Your task to perform on an android device: refresh tabs in the chrome app Image 0: 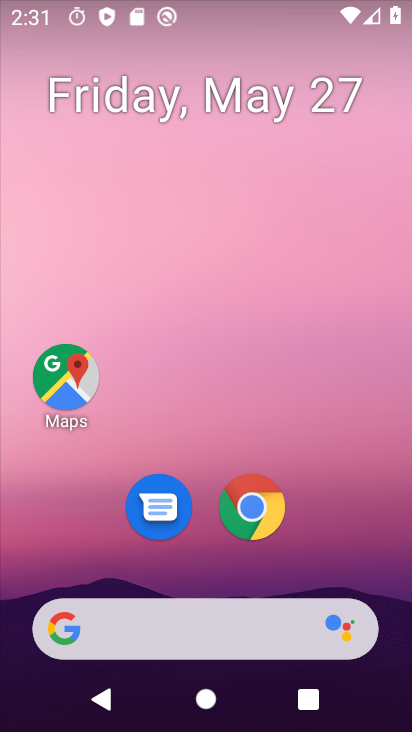
Step 0: drag from (220, 603) to (180, 254)
Your task to perform on an android device: refresh tabs in the chrome app Image 1: 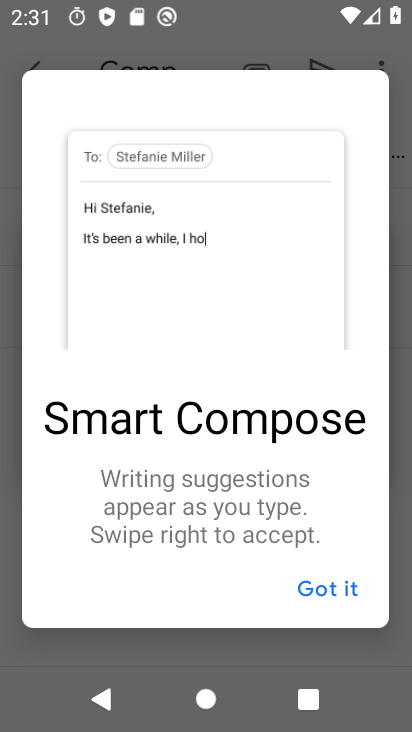
Step 1: click (337, 592)
Your task to perform on an android device: refresh tabs in the chrome app Image 2: 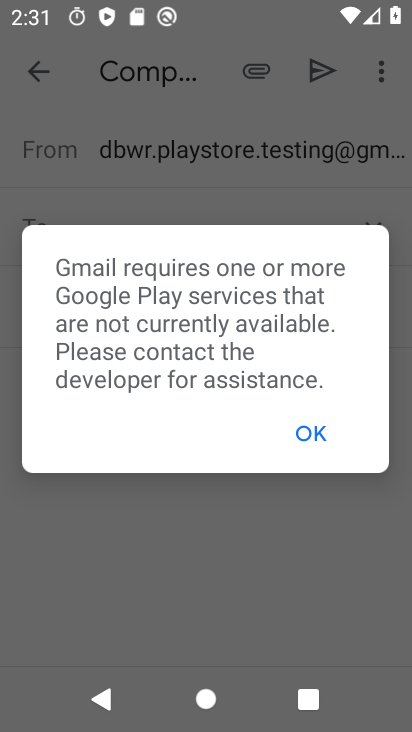
Step 2: press home button
Your task to perform on an android device: refresh tabs in the chrome app Image 3: 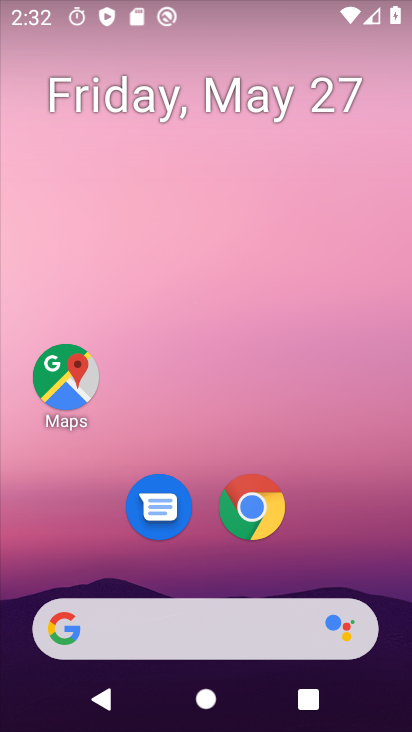
Step 3: click (245, 504)
Your task to perform on an android device: refresh tabs in the chrome app Image 4: 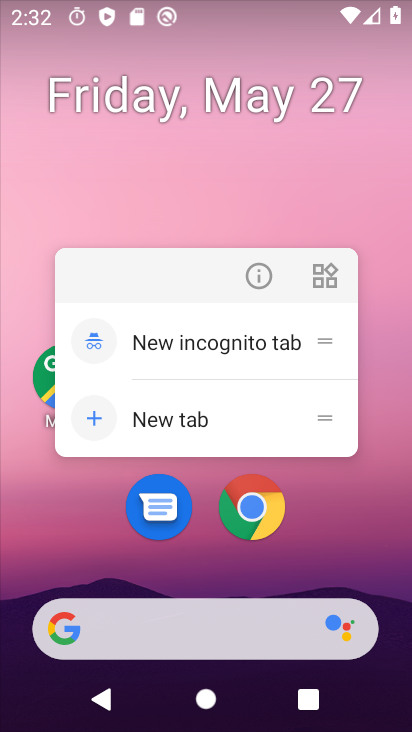
Step 4: click (245, 504)
Your task to perform on an android device: refresh tabs in the chrome app Image 5: 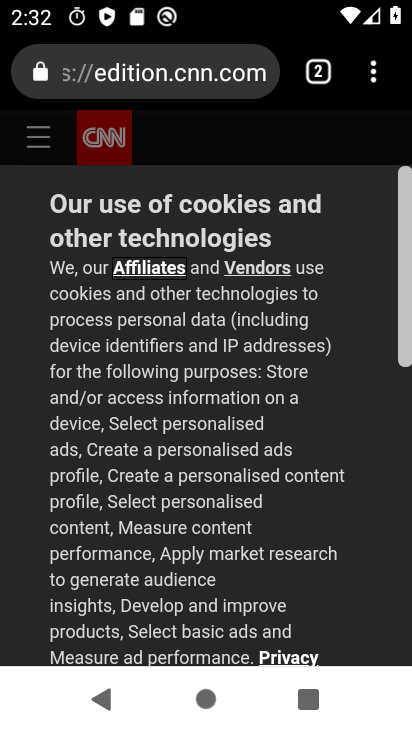
Step 5: click (315, 59)
Your task to perform on an android device: refresh tabs in the chrome app Image 6: 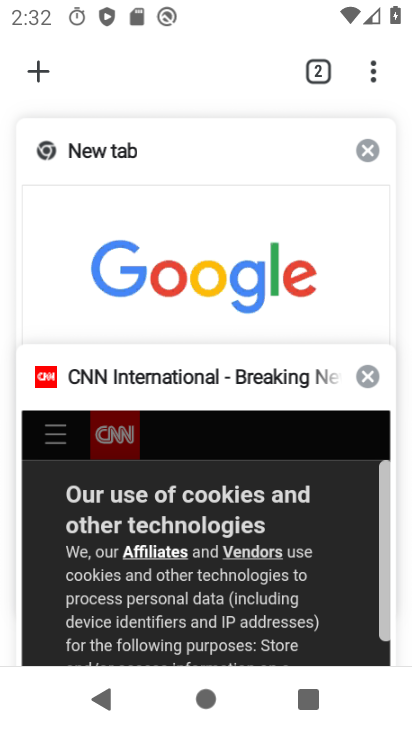
Step 6: click (370, 152)
Your task to perform on an android device: refresh tabs in the chrome app Image 7: 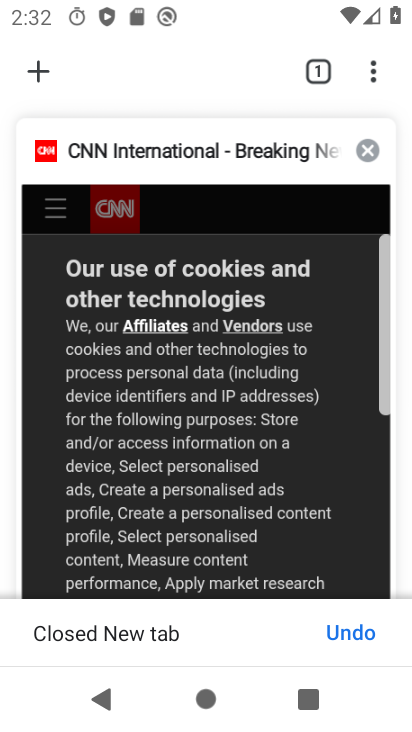
Step 7: click (365, 159)
Your task to perform on an android device: refresh tabs in the chrome app Image 8: 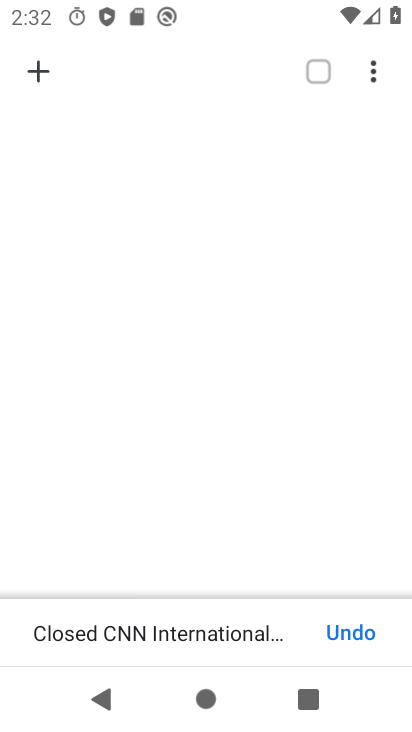
Step 8: click (40, 77)
Your task to perform on an android device: refresh tabs in the chrome app Image 9: 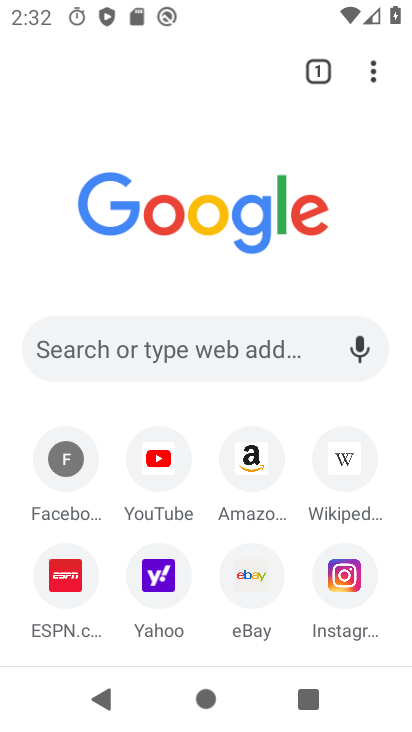
Step 9: click (370, 70)
Your task to perform on an android device: refresh tabs in the chrome app Image 10: 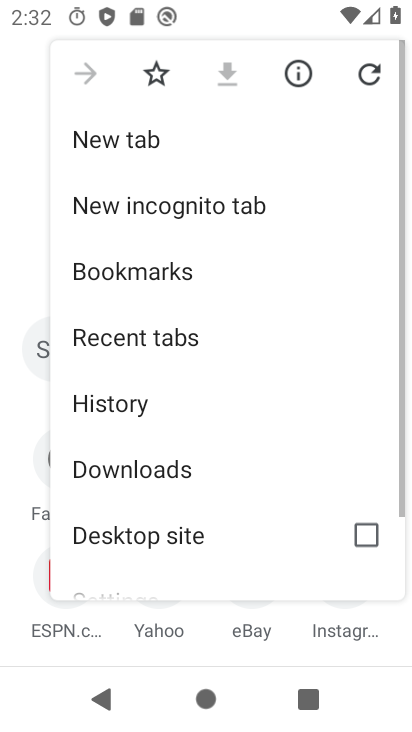
Step 10: click (370, 69)
Your task to perform on an android device: refresh tabs in the chrome app Image 11: 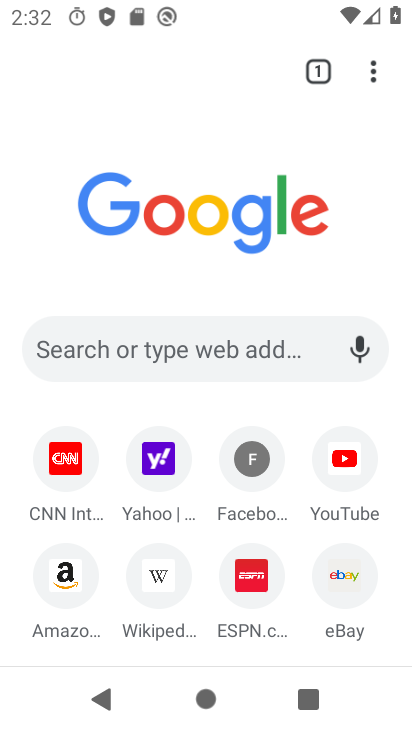
Step 11: task complete